Your task to perform on an android device: toggle show notifications on the lock screen Image 0: 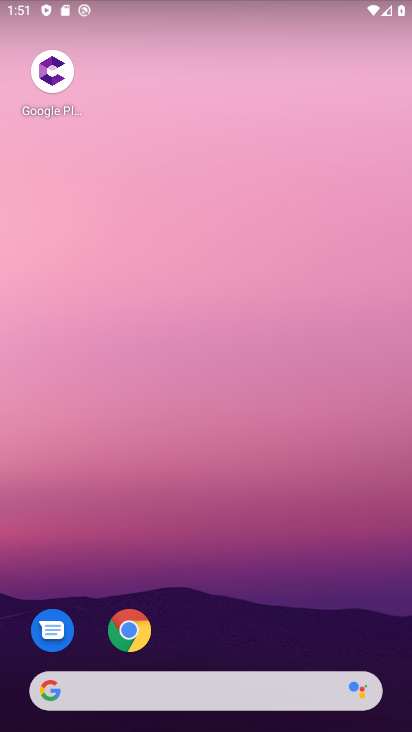
Step 0: drag from (239, 586) to (167, 26)
Your task to perform on an android device: toggle show notifications on the lock screen Image 1: 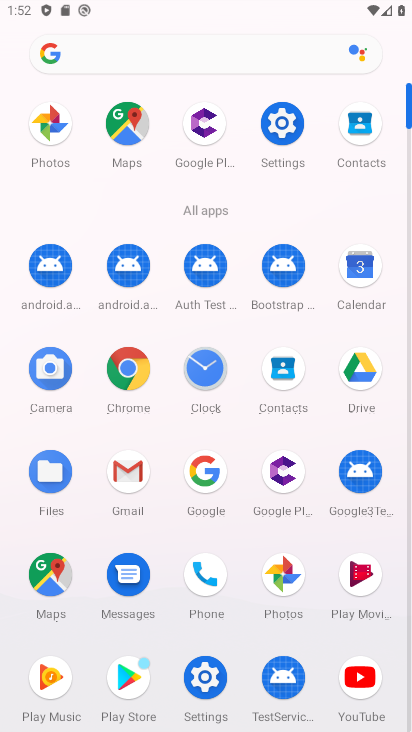
Step 1: drag from (13, 565) to (0, 252)
Your task to perform on an android device: toggle show notifications on the lock screen Image 2: 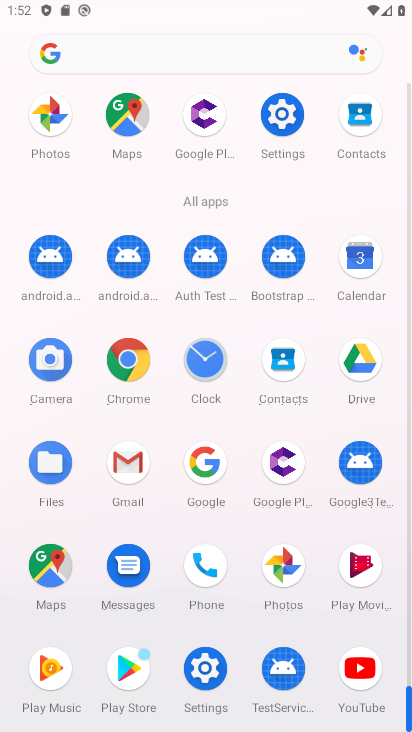
Step 2: click (207, 665)
Your task to perform on an android device: toggle show notifications on the lock screen Image 3: 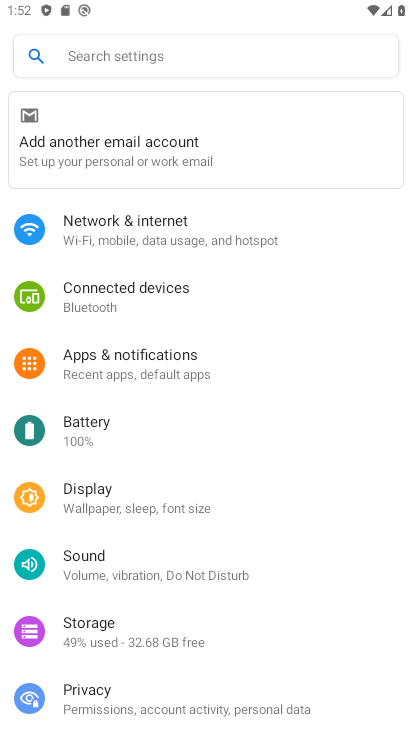
Step 3: click (132, 355)
Your task to perform on an android device: toggle show notifications on the lock screen Image 4: 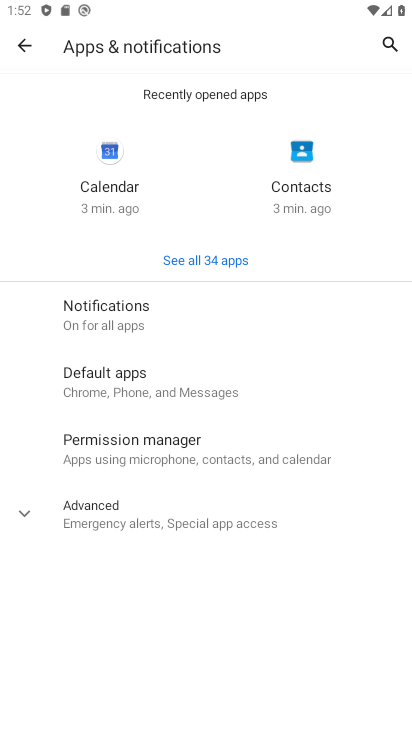
Step 4: click (11, 506)
Your task to perform on an android device: toggle show notifications on the lock screen Image 5: 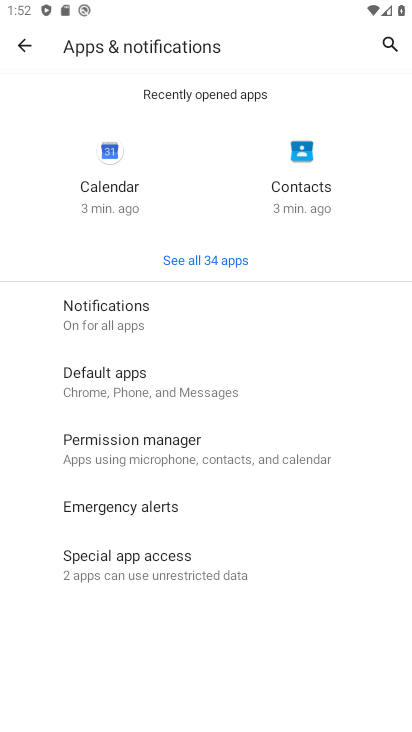
Step 5: click (144, 311)
Your task to perform on an android device: toggle show notifications on the lock screen Image 6: 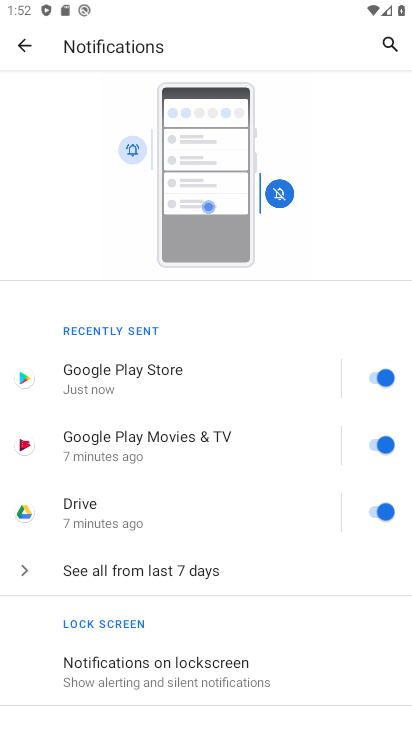
Step 6: drag from (199, 544) to (187, 176)
Your task to perform on an android device: toggle show notifications on the lock screen Image 7: 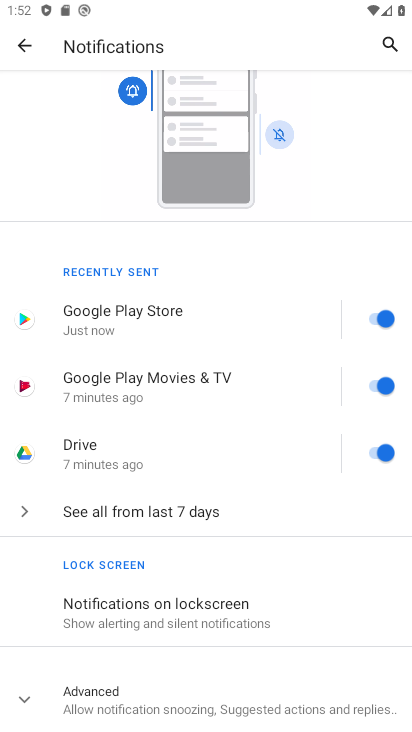
Step 7: click (130, 605)
Your task to perform on an android device: toggle show notifications on the lock screen Image 8: 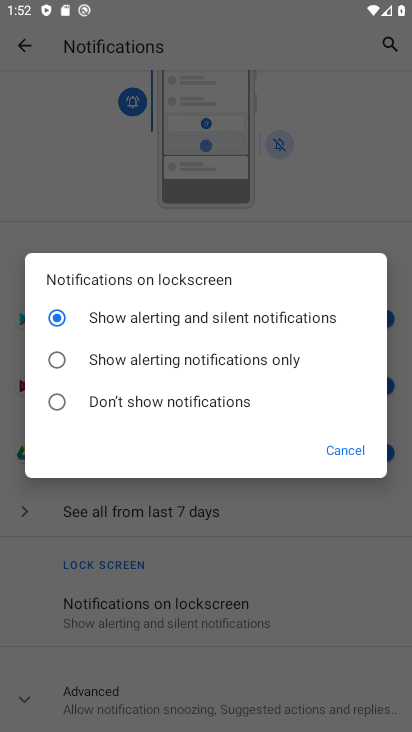
Step 8: click (132, 313)
Your task to perform on an android device: toggle show notifications on the lock screen Image 9: 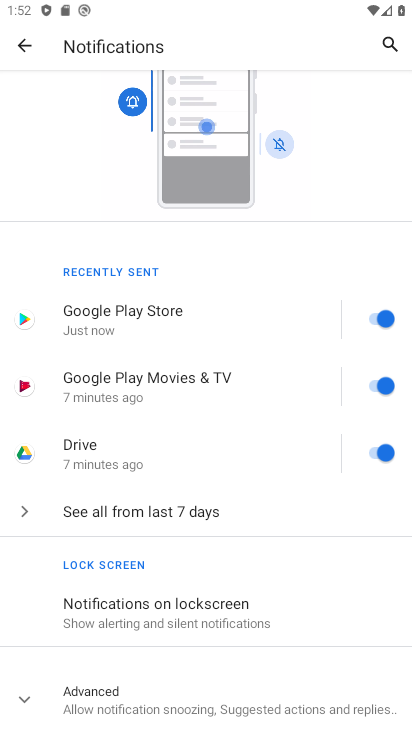
Step 9: click (28, 695)
Your task to perform on an android device: toggle show notifications on the lock screen Image 10: 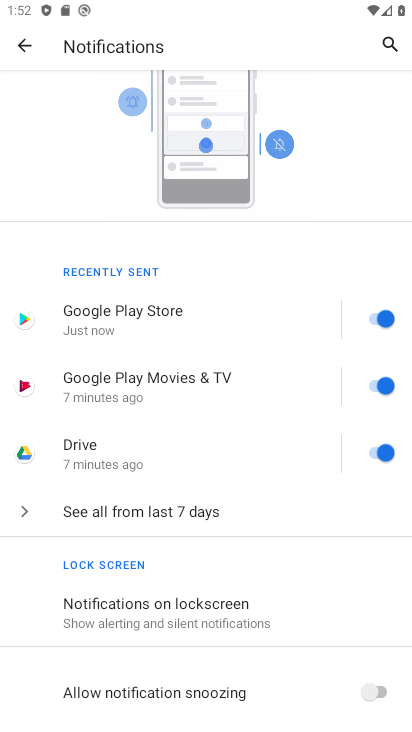
Step 10: task complete